Your task to perform on an android device: turn on bluetooth scan Image 0: 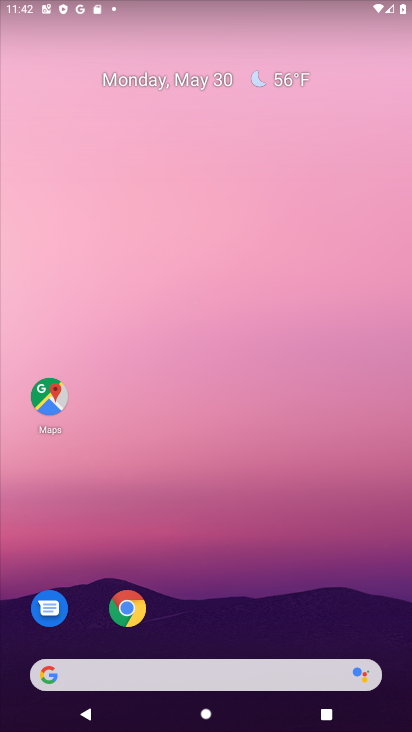
Step 0: drag from (172, 599) to (174, 67)
Your task to perform on an android device: turn on bluetooth scan Image 1: 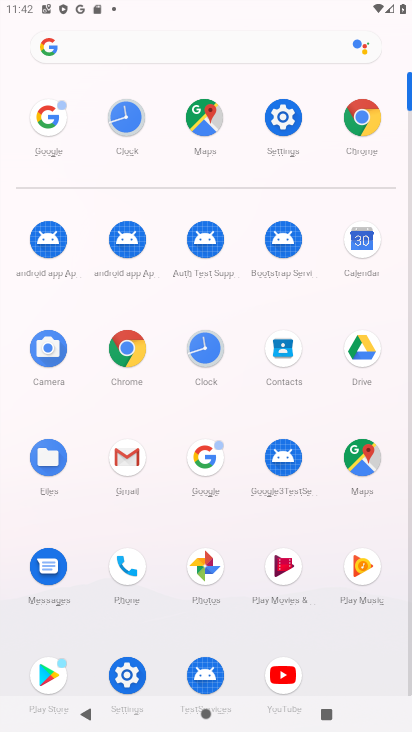
Step 1: click (283, 113)
Your task to perform on an android device: turn on bluetooth scan Image 2: 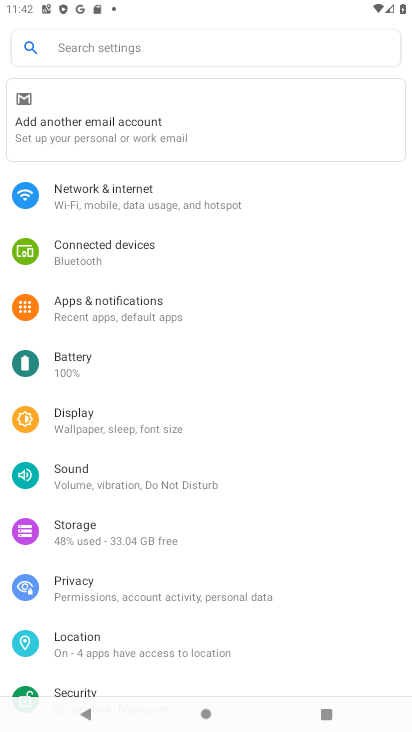
Step 2: click (101, 653)
Your task to perform on an android device: turn on bluetooth scan Image 3: 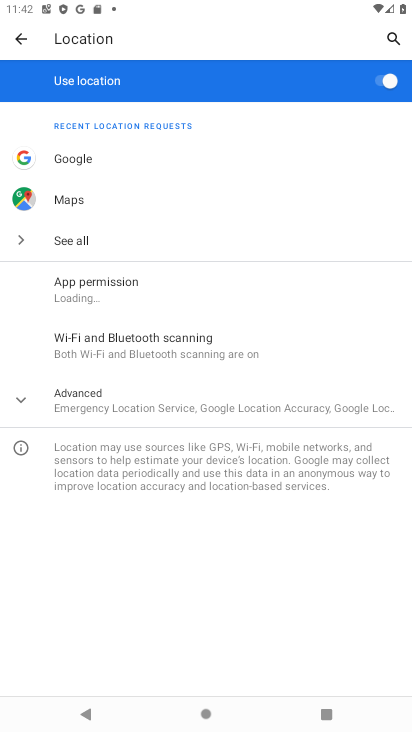
Step 3: click (127, 347)
Your task to perform on an android device: turn on bluetooth scan Image 4: 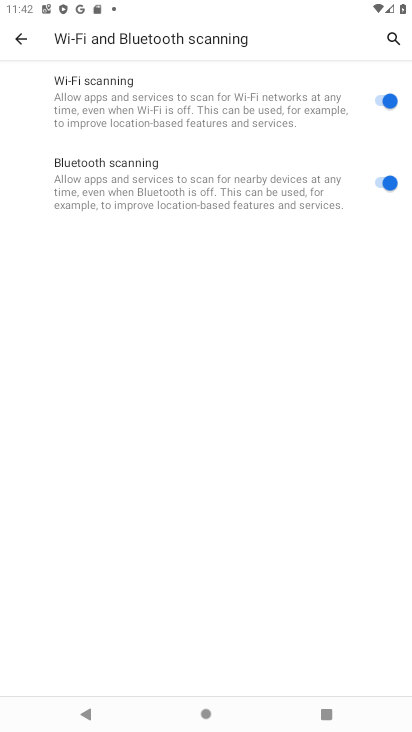
Step 4: task complete